Your task to perform on an android device: turn pop-ups off in chrome Image 0: 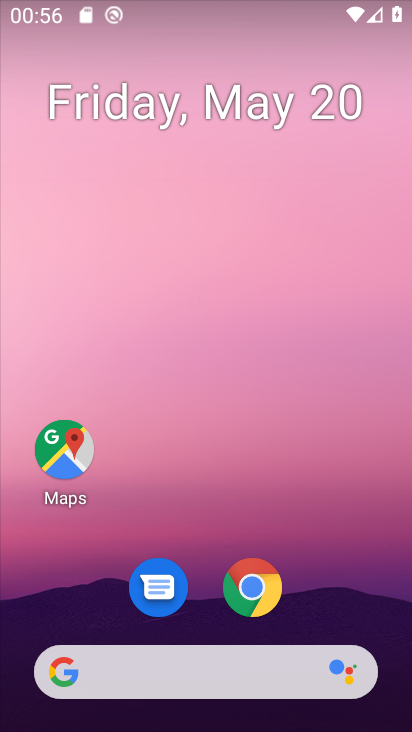
Step 0: drag from (377, 618) to (373, 218)
Your task to perform on an android device: turn pop-ups off in chrome Image 1: 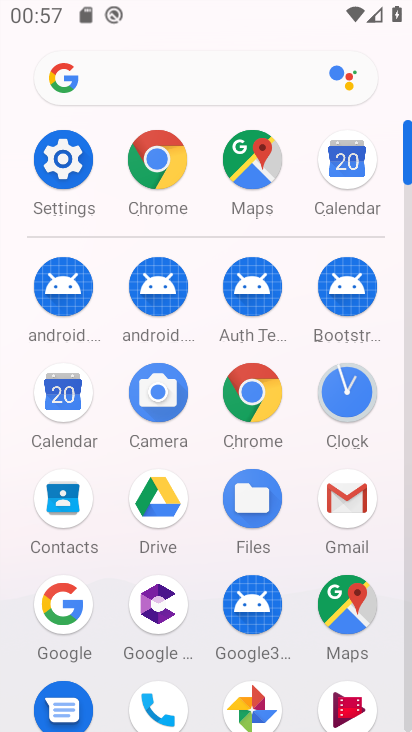
Step 1: click (254, 406)
Your task to perform on an android device: turn pop-ups off in chrome Image 2: 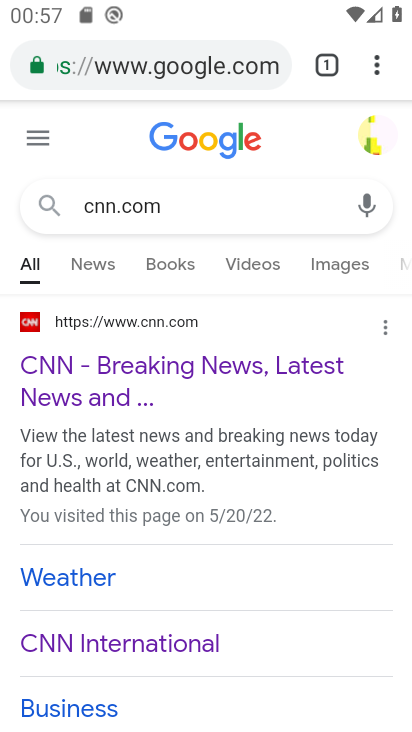
Step 2: click (377, 71)
Your task to perform on an android device: turn pop-ups off in chrome Image 3: 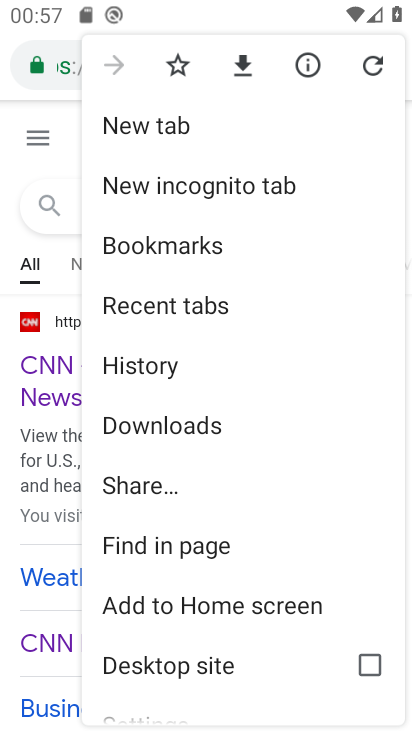
Step 3: drag from (332, 476) to (351, 336)
Your task to perform on an android device: turn pop-ups off in chrome Image 4: 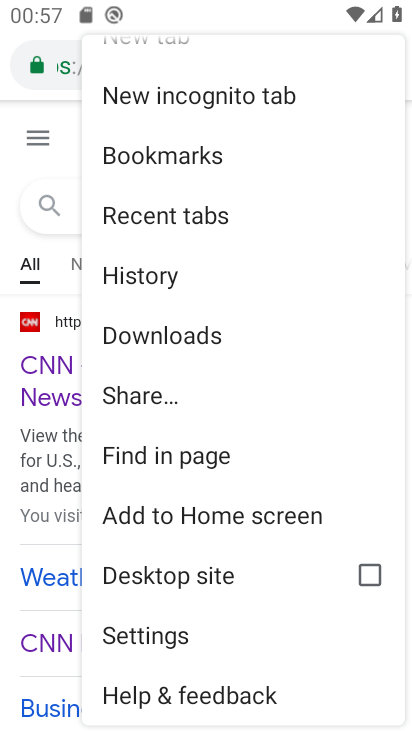
Step 4: drag from (293, 562) to (316, 413)
Your task to perform on an android device: turn pop-ups off in chrome Image 5: 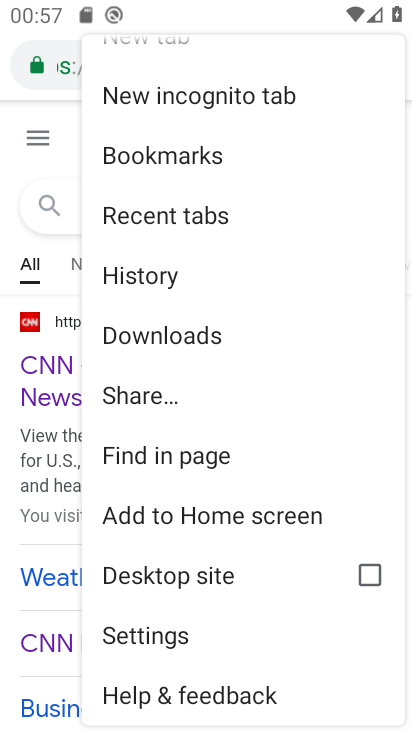
Step 5: click (190, 632)
Your task to perform on an android device: turn pop-ups off in chrome Image 6: 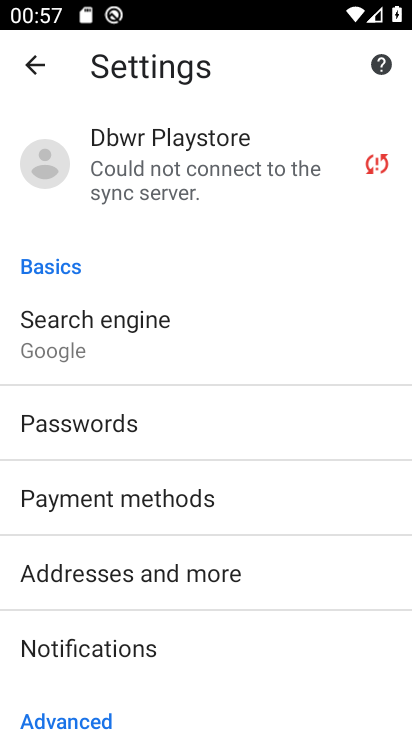
Step 6: drag from (273, 672) to (290, 556)
Your task to perform on an android device: turn pop-ups off in chrome Image 7: 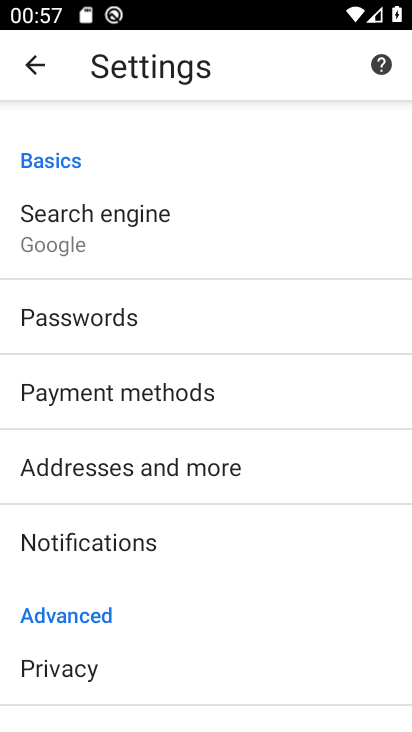
Step 7: drag from (318, 673) to (310, 531)
Your task to perform on an android device: turn pop-ups off in chrome Image 8: 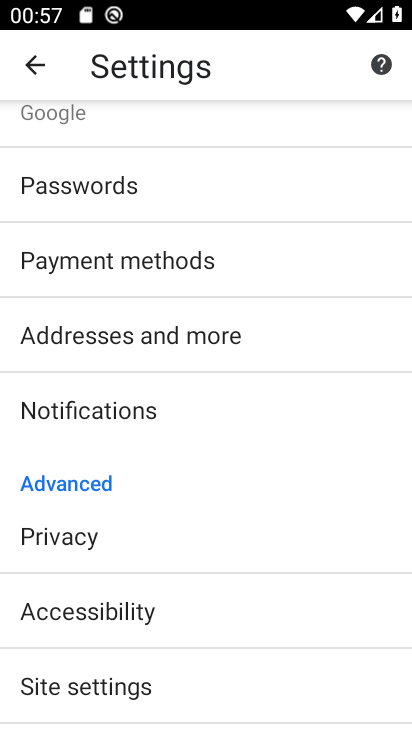
Step 8: drag from (327, 646) to (327, 526)
Your task to perform on an android device: turn pop-ups off in chrome Image 9: 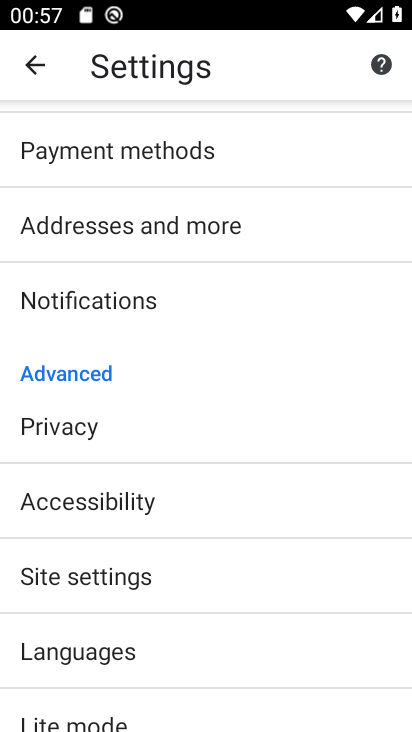
Step 9: drag from (321, 599) to (319, 490)
Your task to perform on an android device: turn pop-ups off in chrome Image 10: 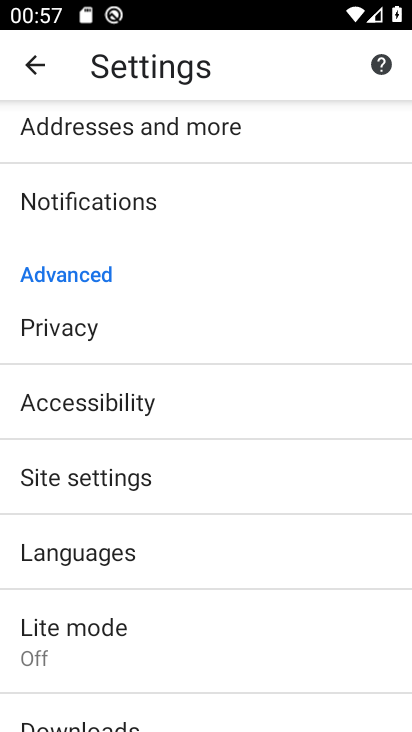
Step 10: drag from (318, 646) to (318, 544)
Your task to perform on an android device: turn pop-ups off in chrome Image 11: 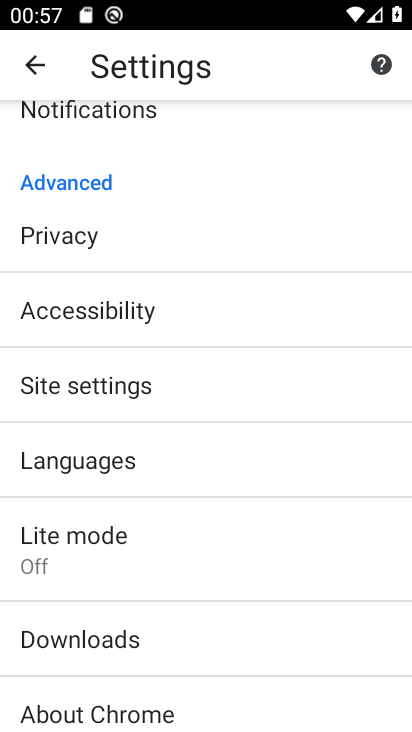
Step 11: drag from (317, 662) to (321, 575)
Your task to perform on an android device: turn pop-ups off in chrome Image 12: 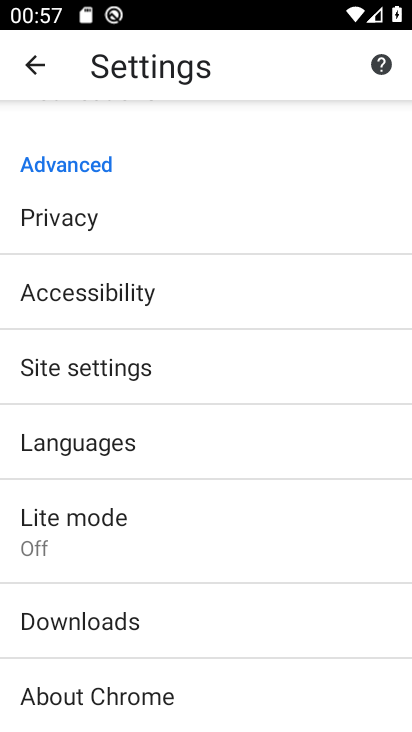
Step 12: click (271, 377)
Your task to perform on an android device: turn pop-ups off in chrome Image 13: 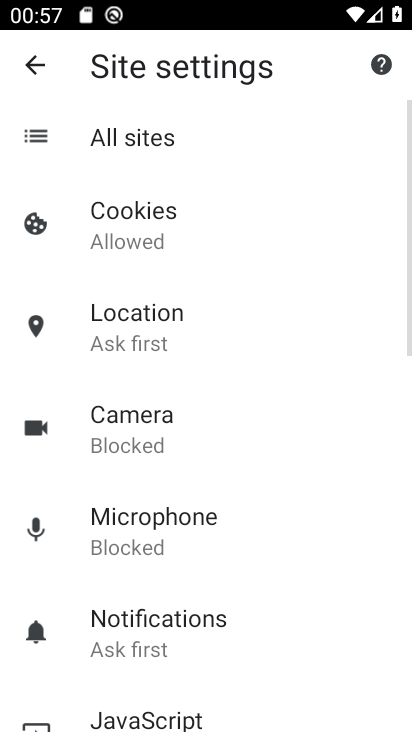
Step 13: drag from (282, 547) to (289, 313)
Your task to perform on an android device: turn pop-ups off in chrome Image 14: 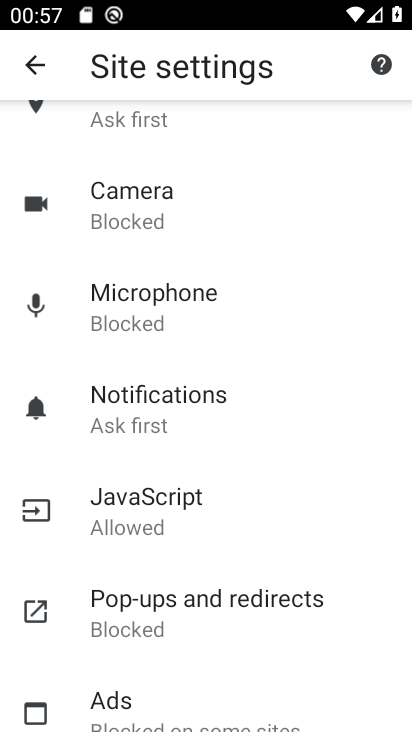
Step 14: drag from (327, 649) to (332, 445)
Your task to perform on an android device: turn pop-ups off in chrome Image 15: 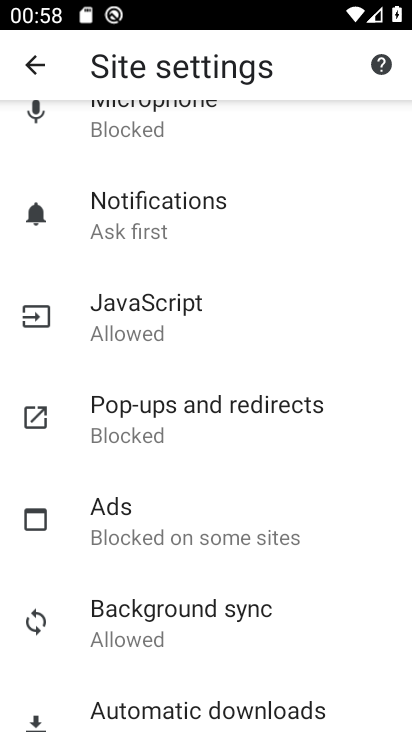
Step 15: drag from (351, 617) to (344, 451)
Your task to perform on an android device: turn pop-ups off in chrome Image 16: 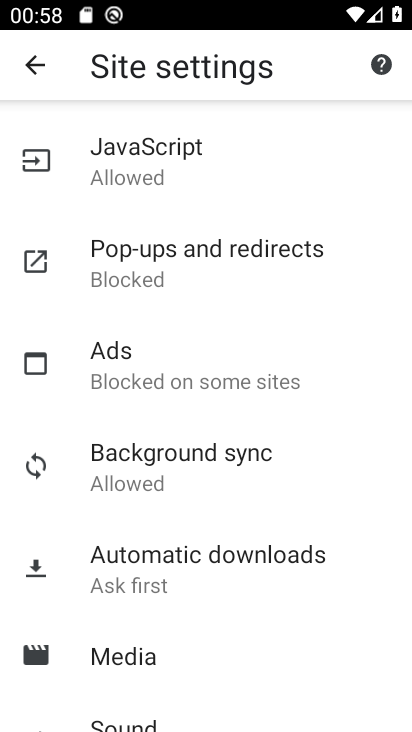
Step 16: drag from (350, 610) to (340, 440)
Your task to perform on an android device: turn pop-ups off in chrome Image 17: 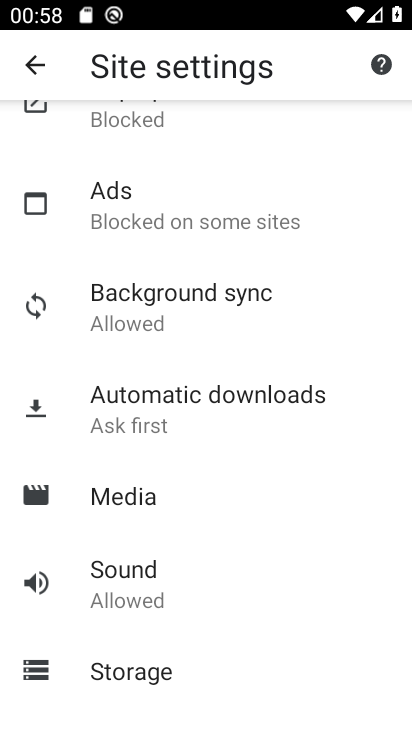
Step 17: drag from (357, 360) to (359, 502)
Your task to perform on an android device: turn pop-ups off in chrome Image 18: 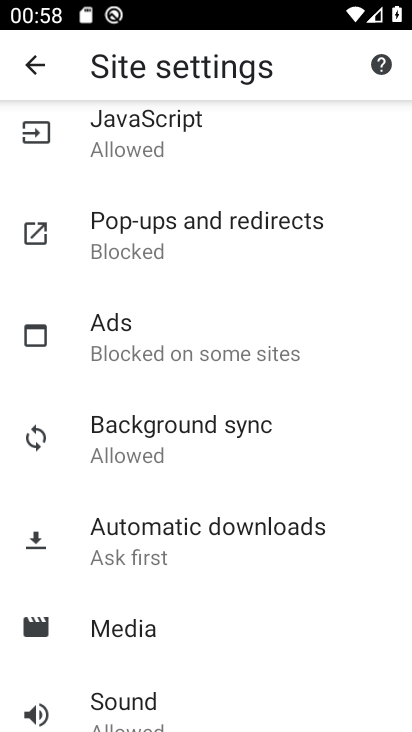
Step 18: drag from (368, 294) to (355, 488)
Your task to perform on an android device: turn pop-ups off in chrome Image 19: 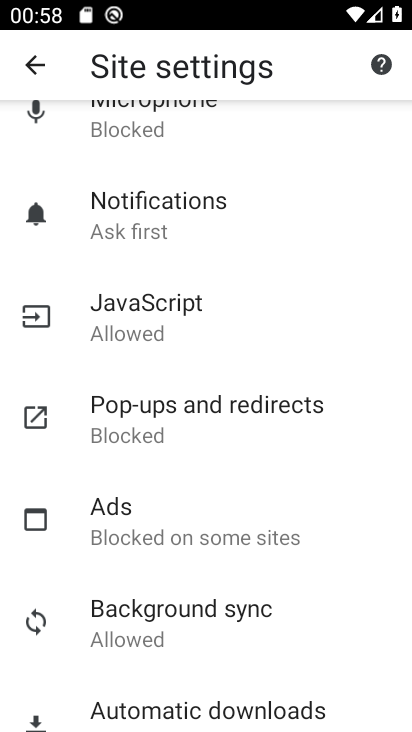
Step 19: click (275, 410)
Your task to perform on an android device: turn pop-ups off in chrome Image 20: 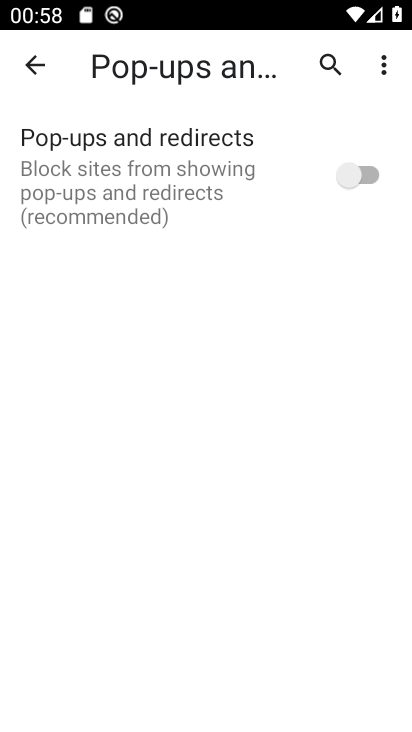
Step 20: task complete